Your task to perform on an android device: see sites visited before in the chrome app Image 0: 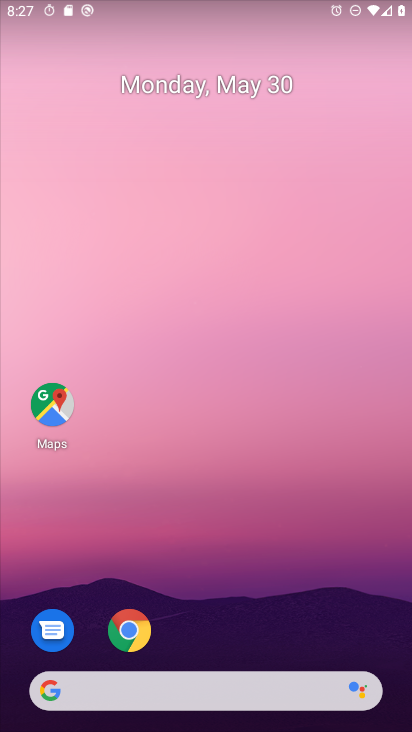
Step 0: drag from (320, 648) to (248, 45)
Your task to perform on an android device: see sites visited before in the chrome app Image 1: 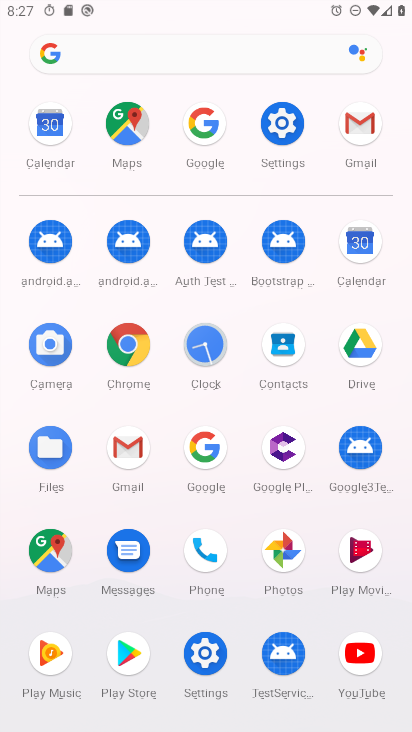
Step 1: click (123, 342)
Your task to perform on an android device: see sites visited before in the chrome app Image 2: 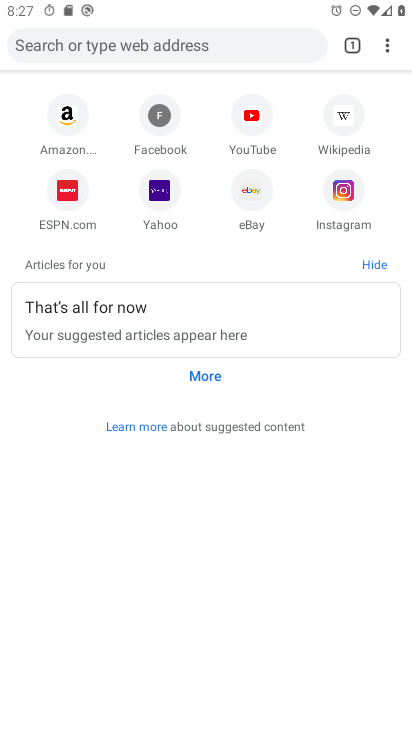
Step 2: click (387, 40)
Your task to perform on an android device: see sites visited before in the chrome app Image 3: 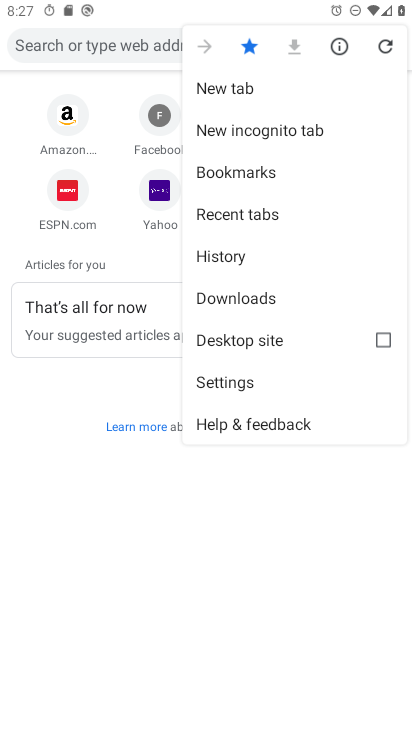
Step 3: click (275, 257)
Your task to perform on an android device: see sites visited before in the chrome app Image 4: 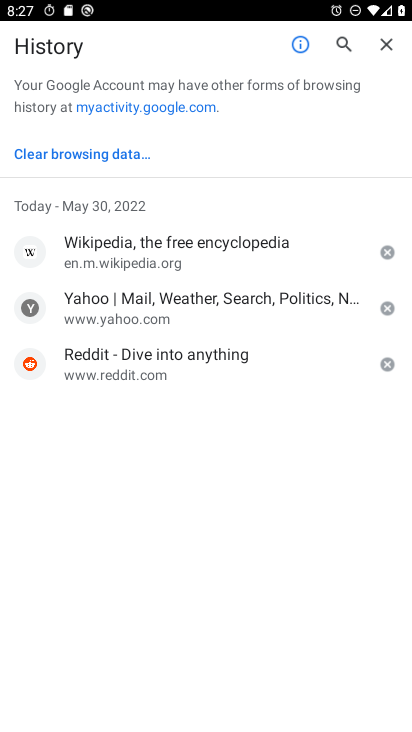
Step 4: click (110, 252)
Your task to perform on an android device: see sites visited before in the chrome app Image 5: 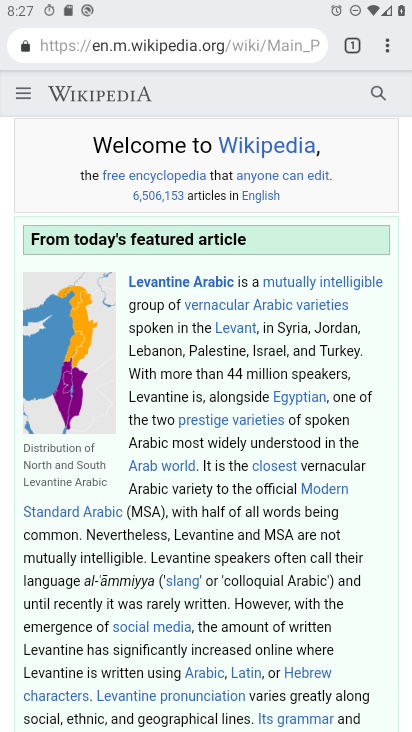
Step 5: task complete